Your task to perform on an android device: Open the stopwatch Image 0: 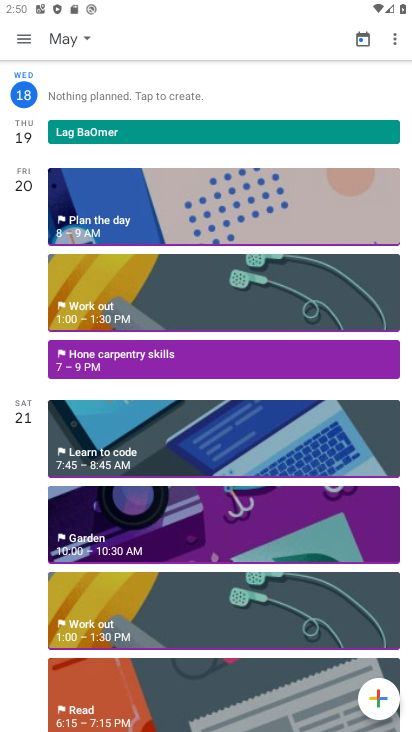
Step 0: press home button
Your task to perform on an android device: Open the stopwatch Image 1: 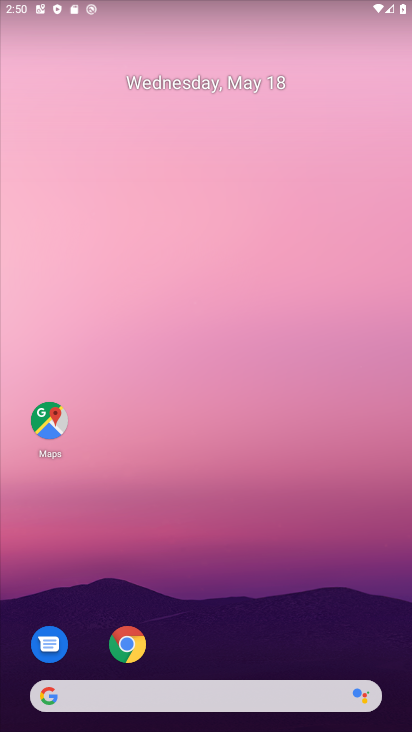
Step 1: drag from (127, 722) to (218, 202)
Your task to perform on an android device: Open the stopwatch Image 2: 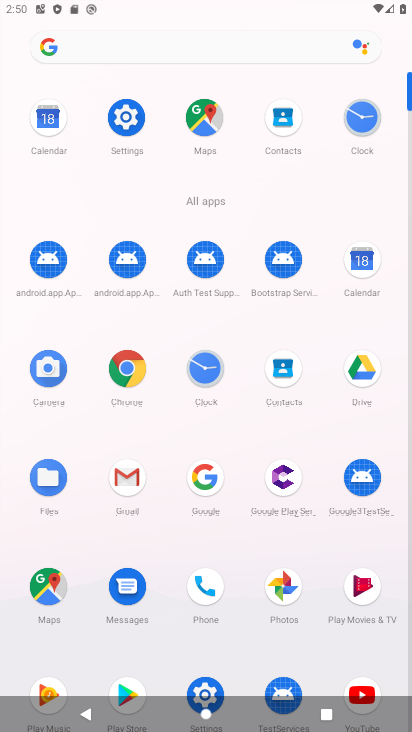
Step 2: click (370, 127)
Your task to perform on an android device: Open the stopwatch Image 3: 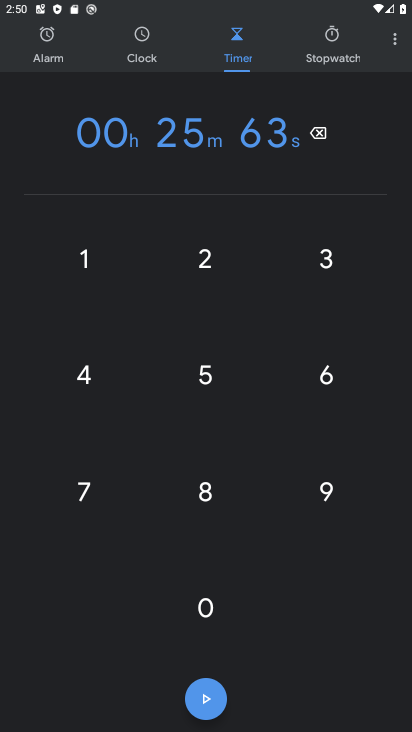
Step 3: click (333, 54)
Your task to perform on an android device: Open the stopwatch Image 4: 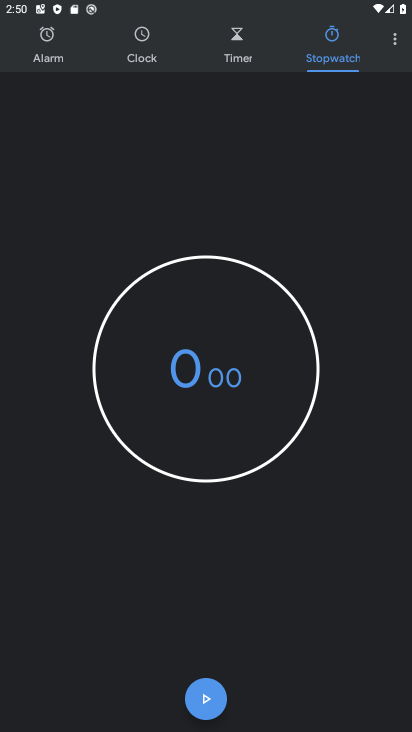
Step 4: task complete